Your task to perform on an android device: set the stopwatch Image 0: 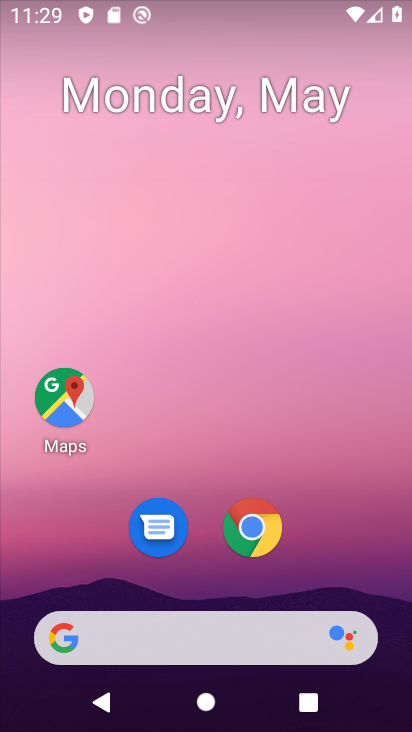
Step 0: press home button
Your task to perform on an android device: set the stopwatch Image 1: 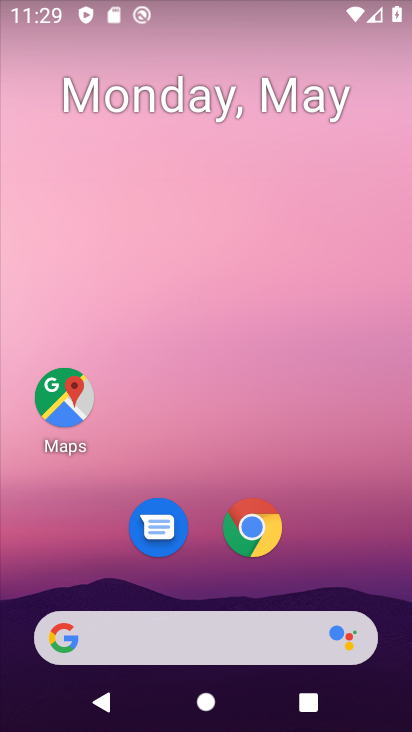
Step 1: drag from (315, 556) to (311, 127)
Your task to perform on an android device: set the stopwatch Image 2: 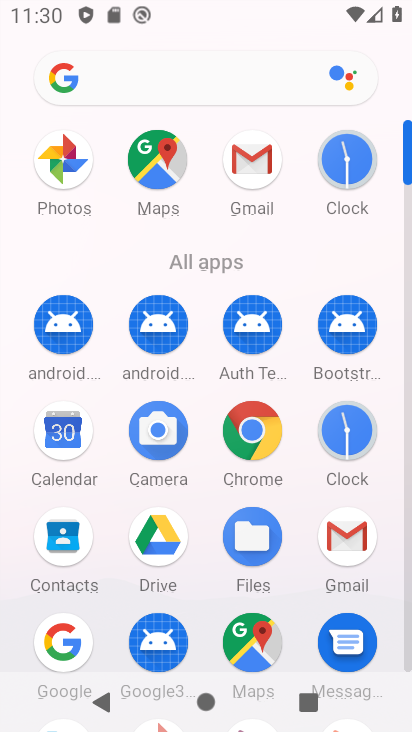
Step 2: click (346, 429)
Your task to perform on an android device: set the stopwatch Image 3: 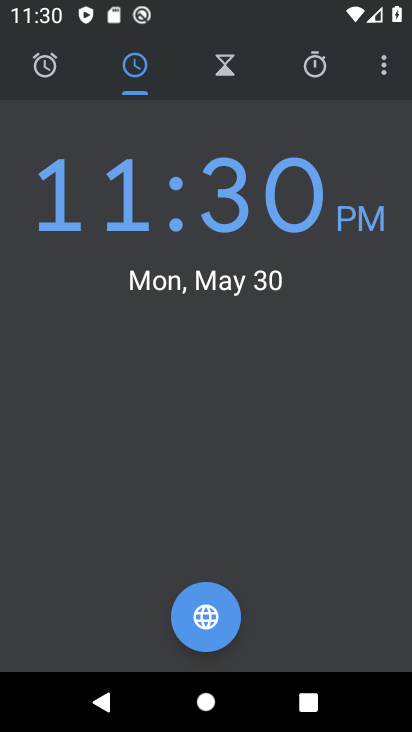
Step 3: click (313, 77)
Your task to perform on an android device: set the stopwatch Image 4: 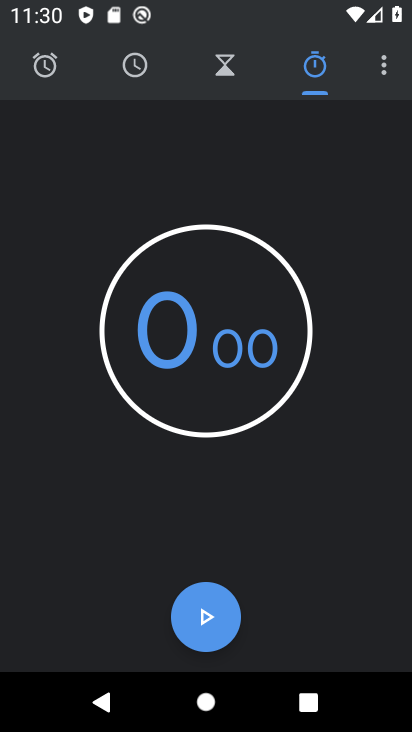
Step 4: click (190, 637)
Your task to perform on an android device: set the stopwatch Image 5: 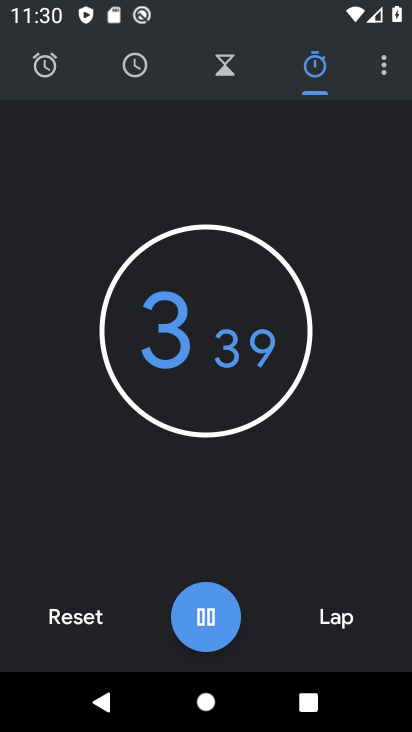
Step 5: click (217, 625)
Your task to perform on an android device: set the stopwatch Image 6: 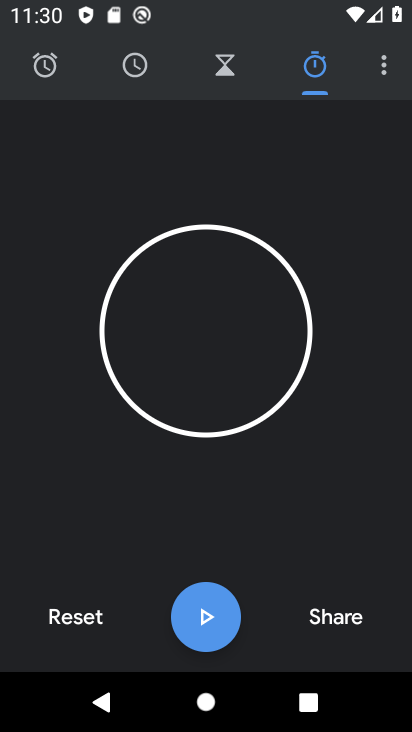
Step 6: task complete